Your task to perform on an android device: open chrome and create a bookmark for the current page Image 0: 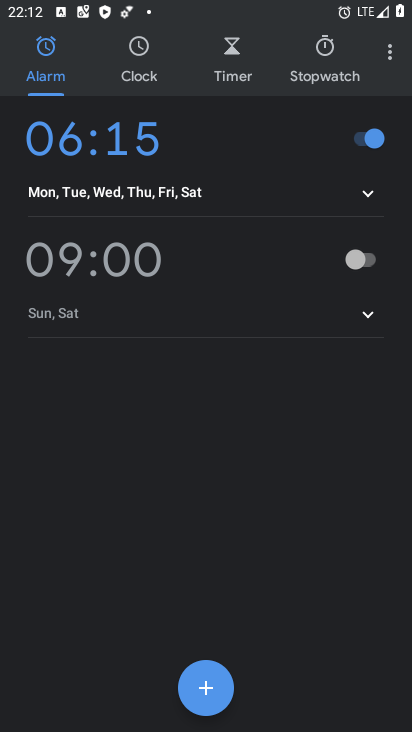
Step 0: press home button
Your task to perform on an android device: open chrome and create a bookmark for the current page Image 1: 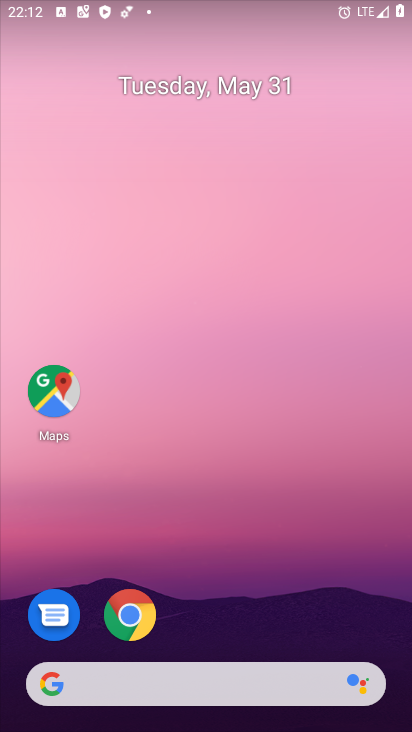
Step 1: click (132, 614)
Your task to perform on an android device: open chrome and create a bookmark for the current page Image 2: 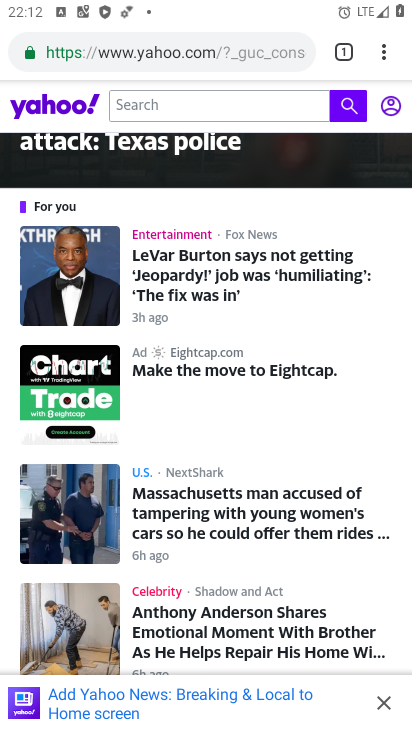
Step 2: click (380, 54)
Your task to perform on an android device: open chrome and create a bookmark for the current page Image 3: 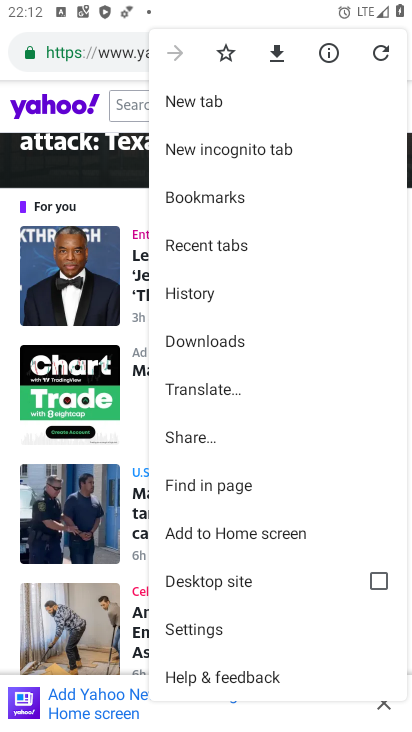
Step 3: click (189, 199)
Your task to perform on an android device: open chrome and create a bookmark for the current page Image 4: 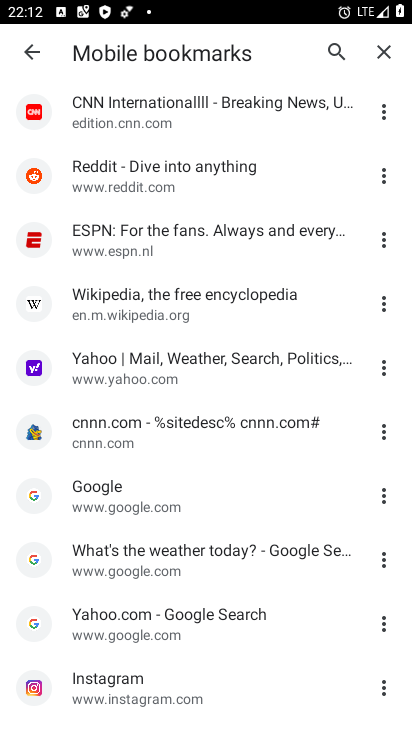
Step 4: click (380, 51)
Your task to perform on an android device: open chrome and create a bookmark for the current page Image 5: 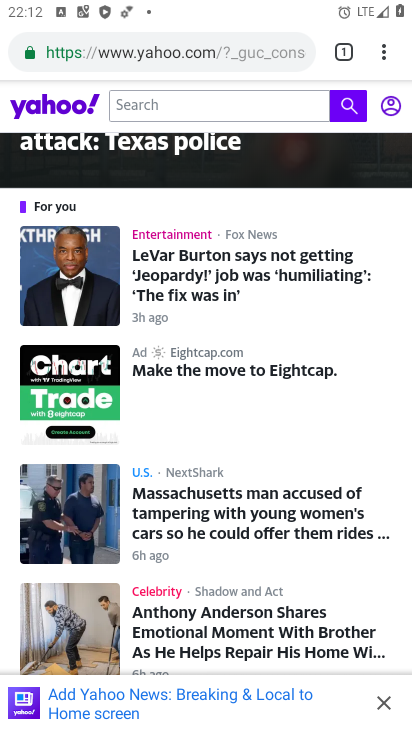
Step 5: click (387, 58)
Your task to perform on an android device: open chrome and create a bookmark for the current page Image 6: 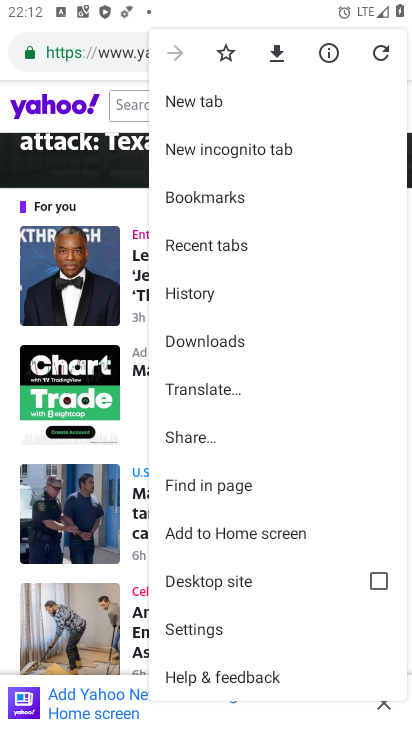
Step 6: click (222, 45)
Your task to perform on an android device: open chrome and create a bookmark for the current page Image 7: 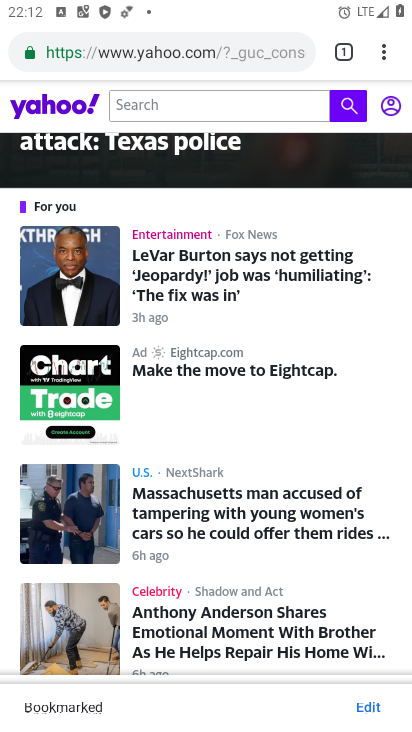
Step 7: task complete